Your task to perform on an android device: Go to ESPN.com Image 0: 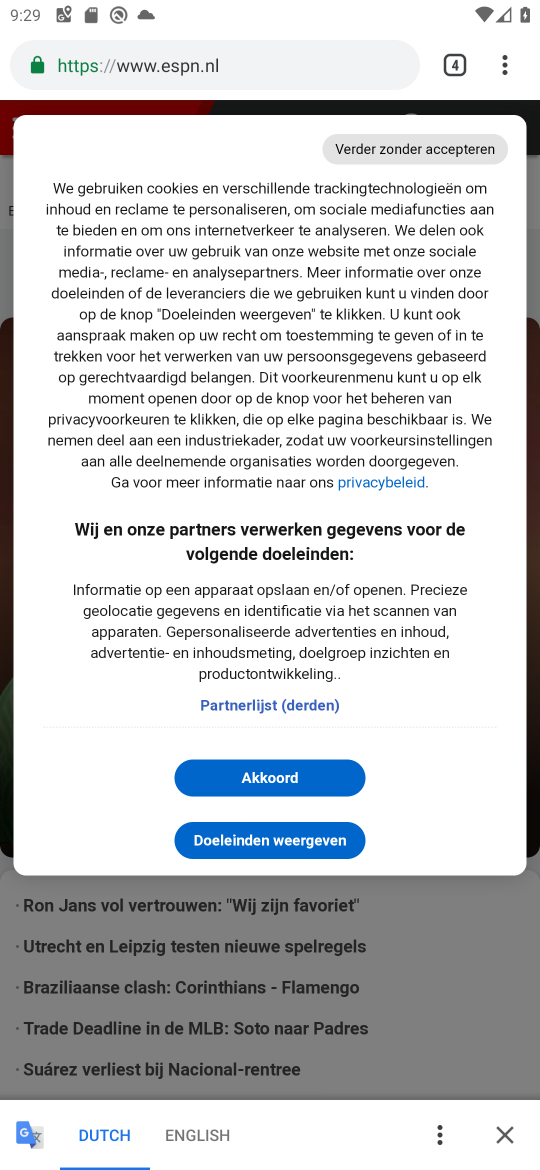
Step 0: click (290, 783)
Your task to perform on an android device: Go to ESPN.com Image 1: 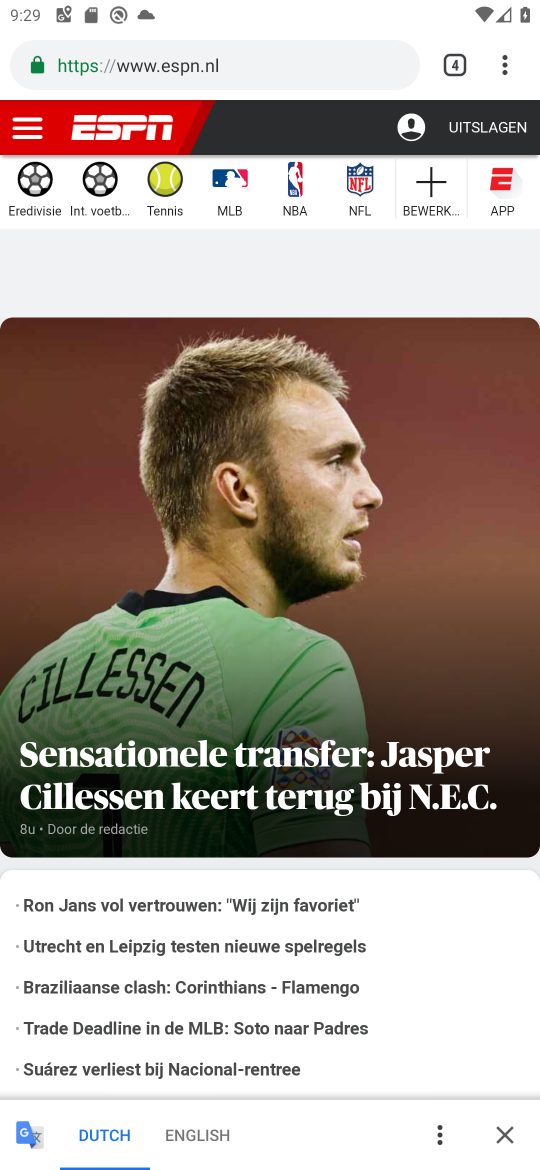
Step 1: task complete